Your task to perform on an android device: Do I have any events tomorrow? Image 0: 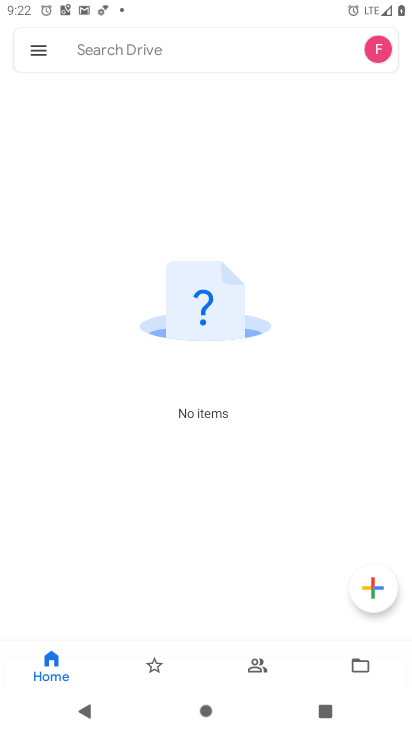
Step 0: press home button
Your task to perform on an android device: Do I have any events tomorrow? Image 1: 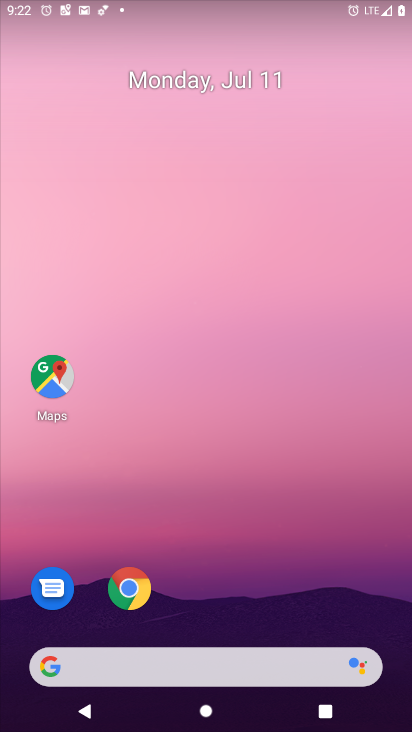
Step 1: drag from (196, 671) to (336, 143)
Your task to perform on an android device: Do I have any events tomorrow? Image 2: 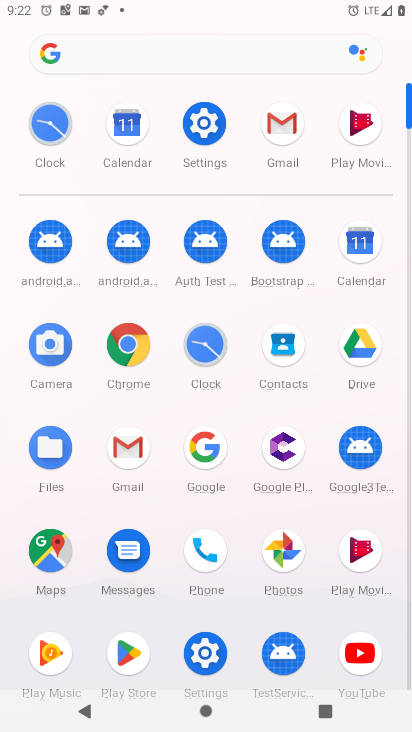
Step 2: click (359, 242)
Your task to perform on an android device: Do I have any events tomorrow? Image 3: 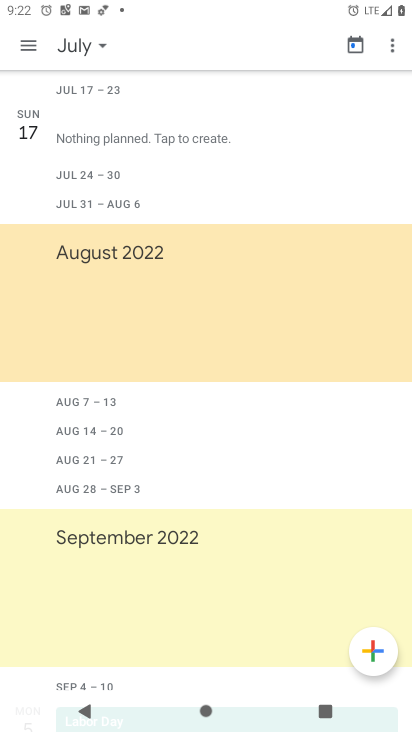
Step 3: click (80, 41)
Your task to perform on an android device: Do I have any events tomorrow? Image 4: 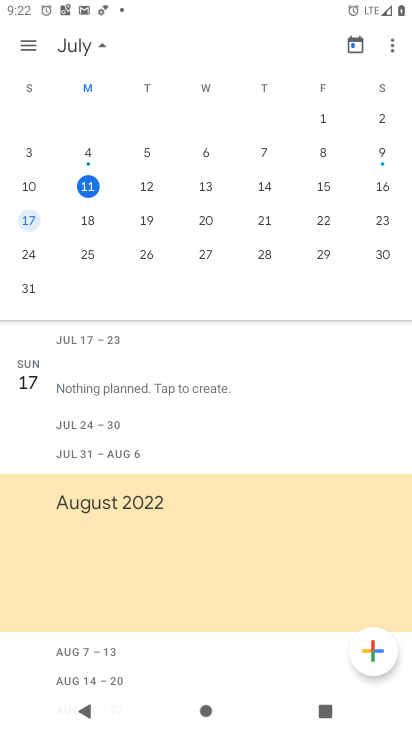
Step 4: click (146, 189)
Your task to perform on an android device: Do I have any events tomorrow? Image 5: 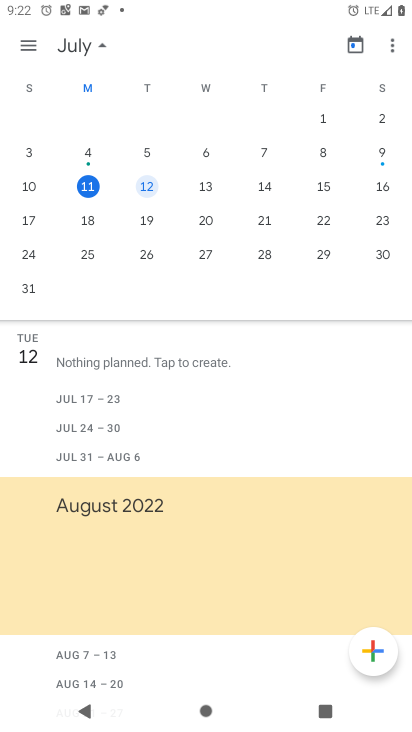
Step 5: click (35, 38)
Your task to perform on an android device: Do I have any events tomorrow? Image 6: 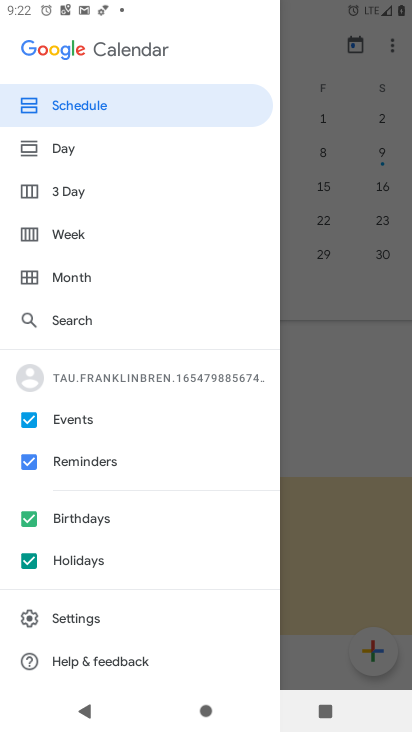
Step 6: click (65, 147)
Your task to perform on an android device: Do I have any events tomorrow? Image 7: 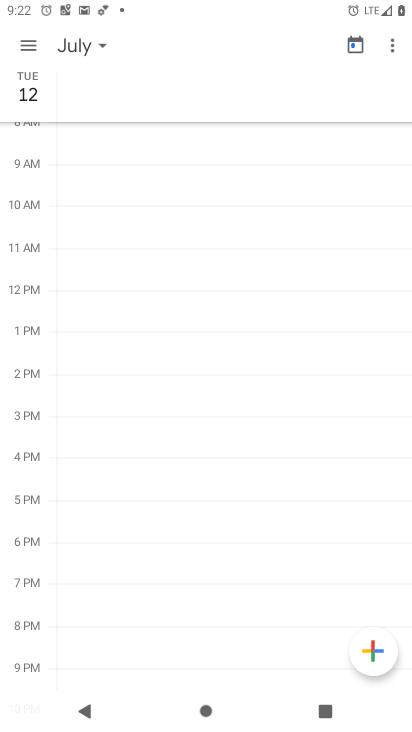
Step 7: click (30, 40)
Your task to perform on an android device: Do I have any events tomorrow? Image 8: 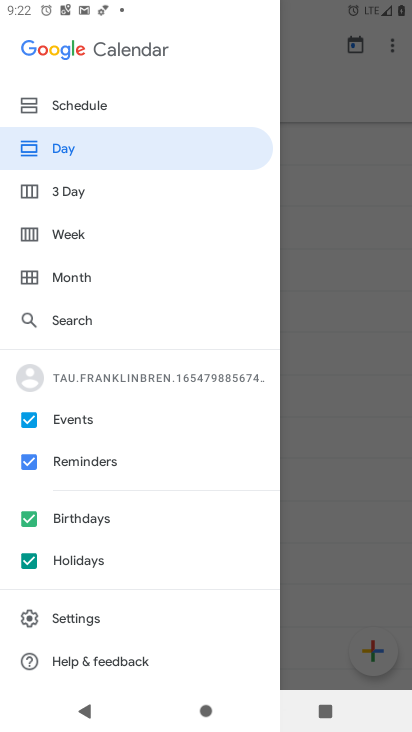
Step 8: click (67, 106)
Your task to perform on an android device: Do I have any events tomorrow? Image 9: 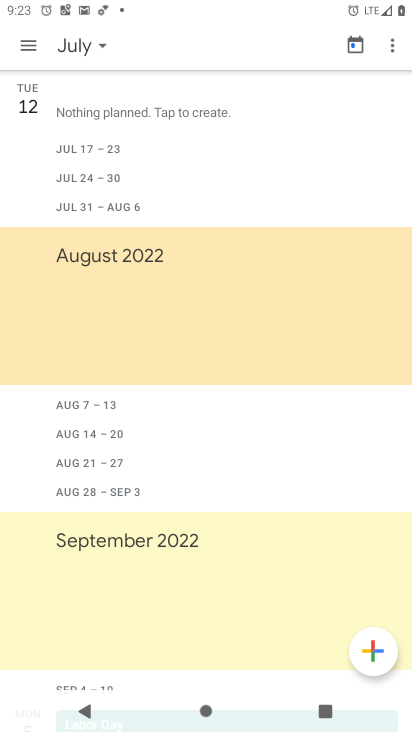
Step 9: task complete